Your task to perform on an android device: add a label to a message in the gmail app Image 0: 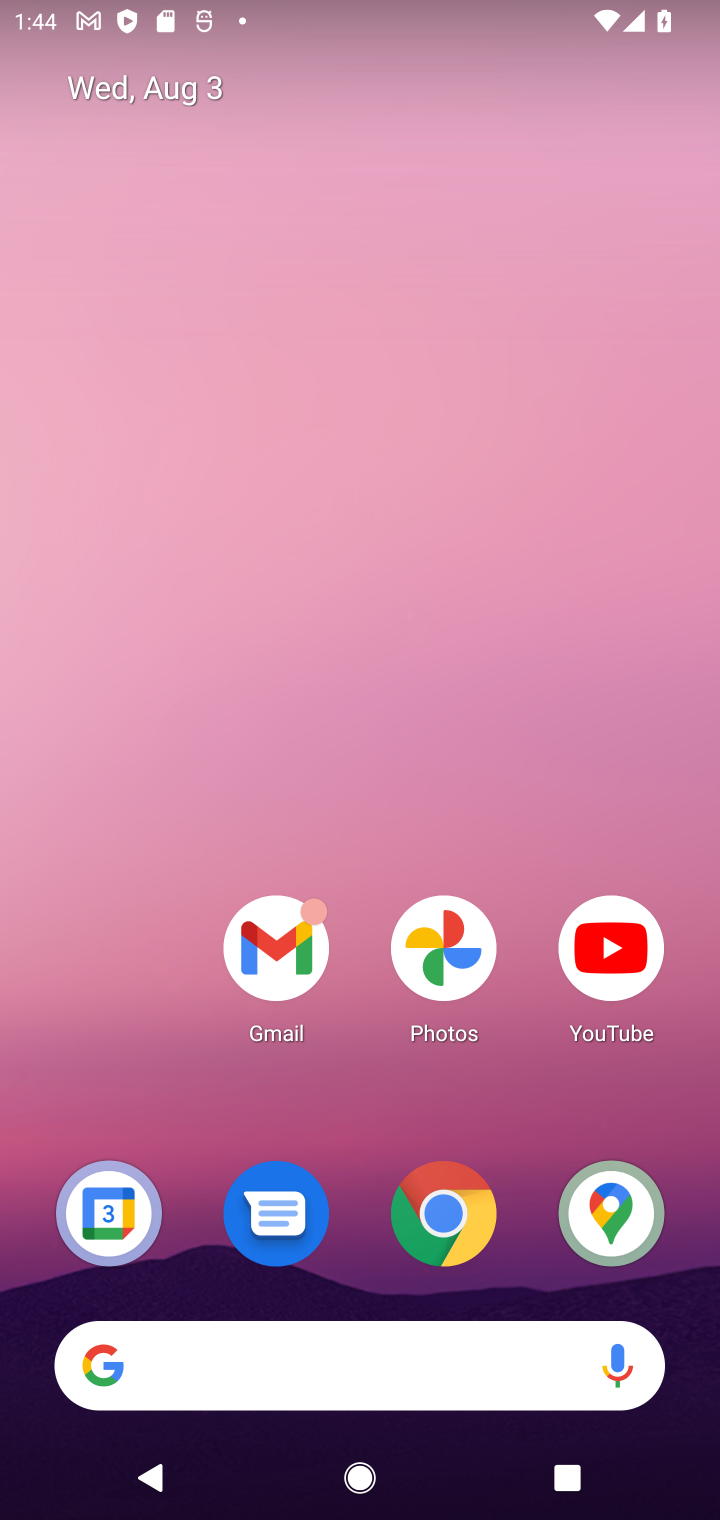
Step 0: drag from (406, 255) to (549, 20)
Your task to perform on an android device: add a label to a message in the gmail app Image 1: 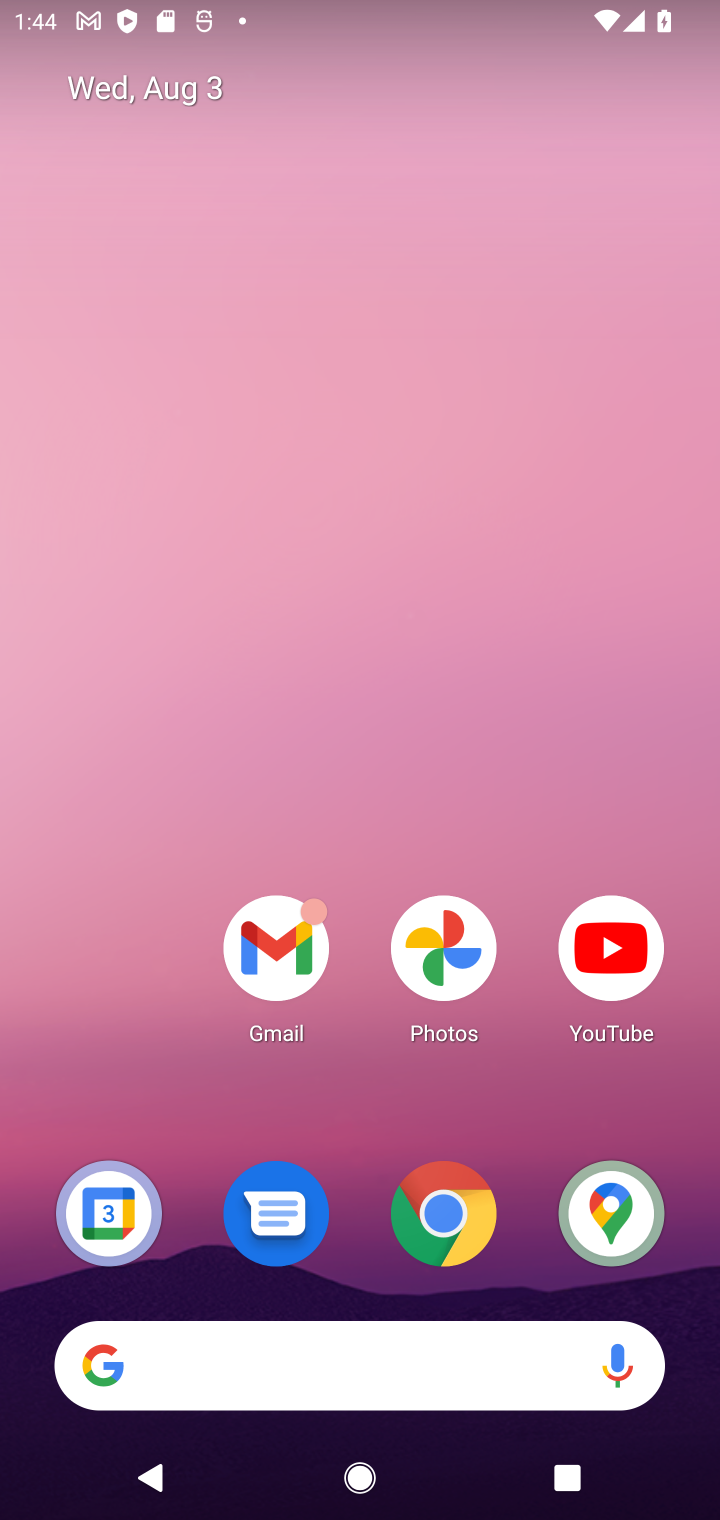
Step 1: drag from (503, 1218) to (621, 76)
Your task to perform on an android device: add a label to a message in the gmail app Image 2: 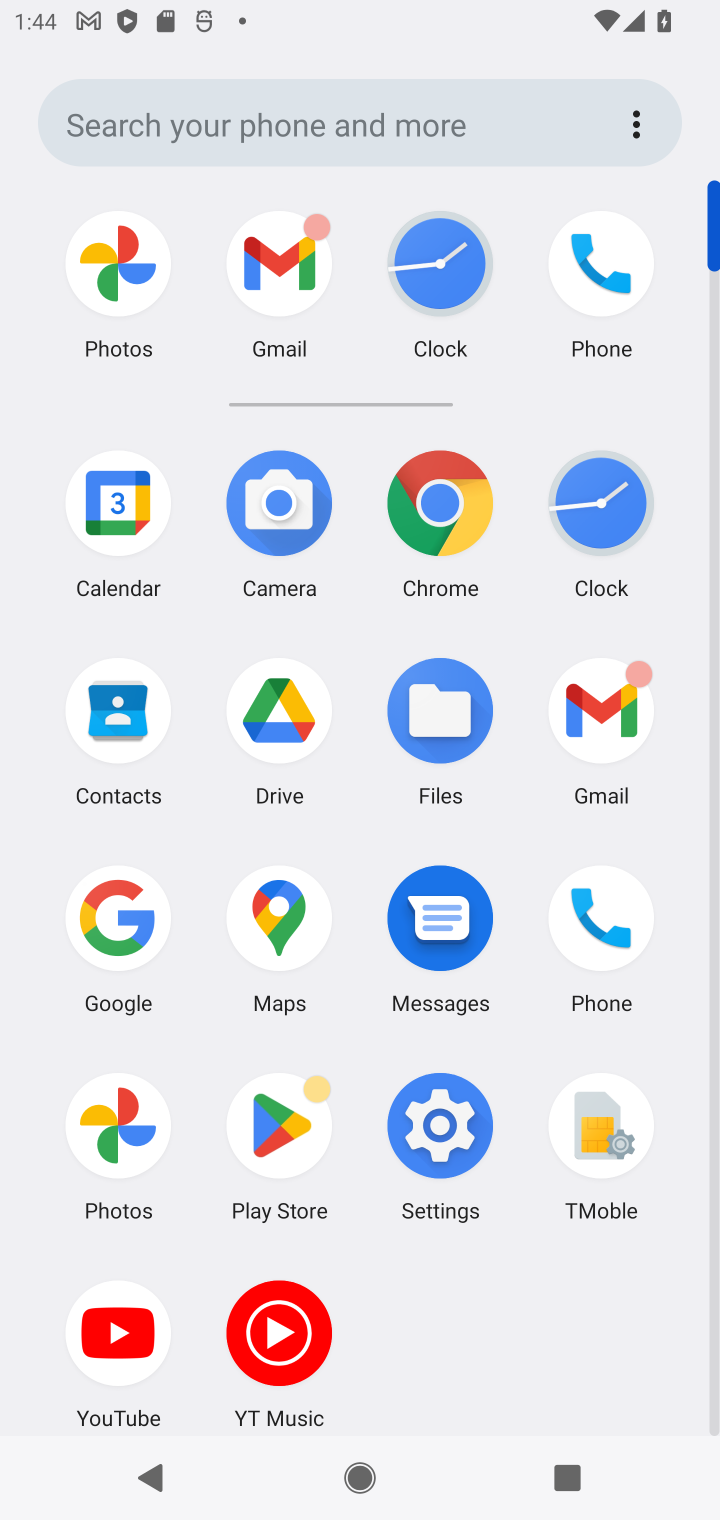
Step 2: click (599, 669)
Your task to perform on an android device: add a label to a message in the gmail app Image 3: 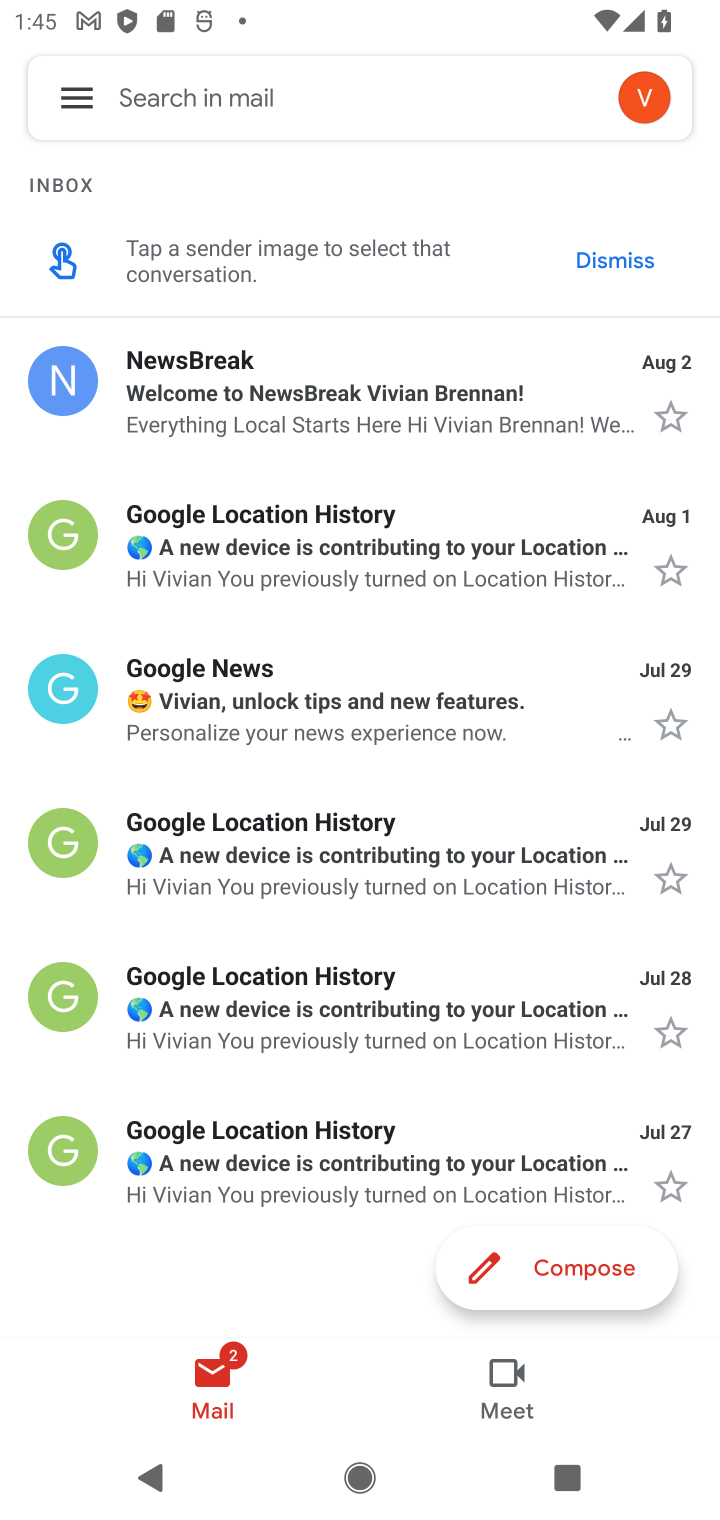
Step 3: click (444, 387)
Your task to perform on an android device: add a label to a message in the gmail app Image 4: 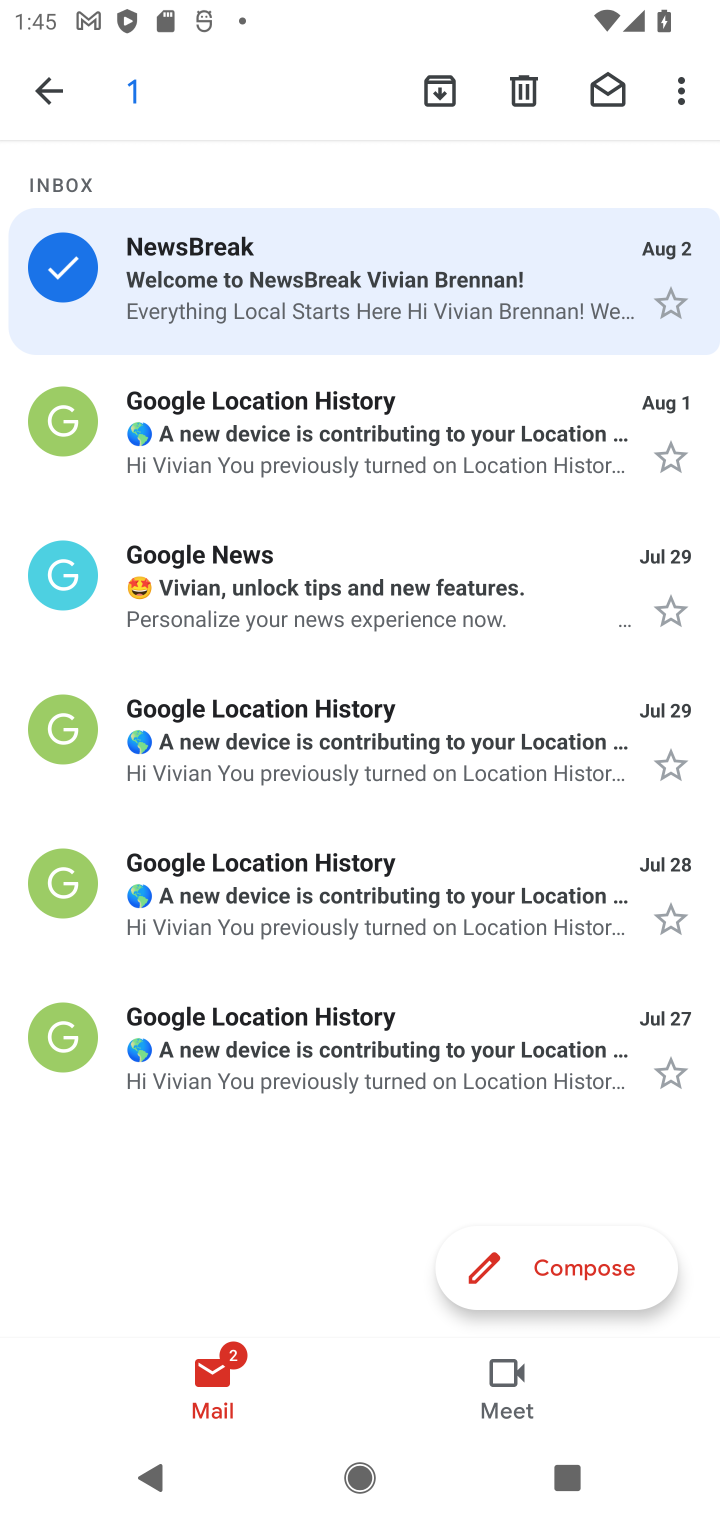
Step 4: click (494, 297)
Your task to perform on an android device: add a label to a message in the gmail app Image 5: 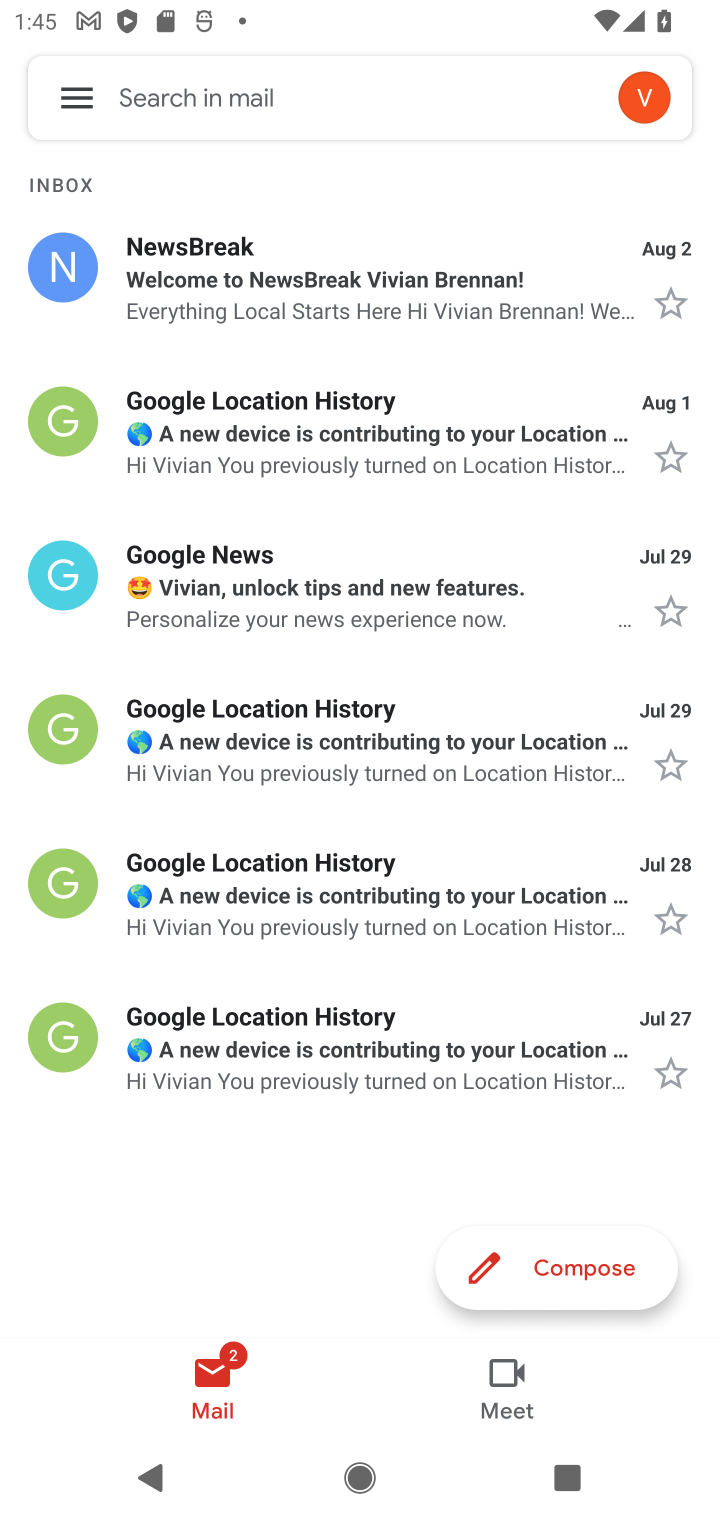
Step 5: click (490, 303)
Your task to perform on an android device: add a label to a message in the gmail app Image 6: 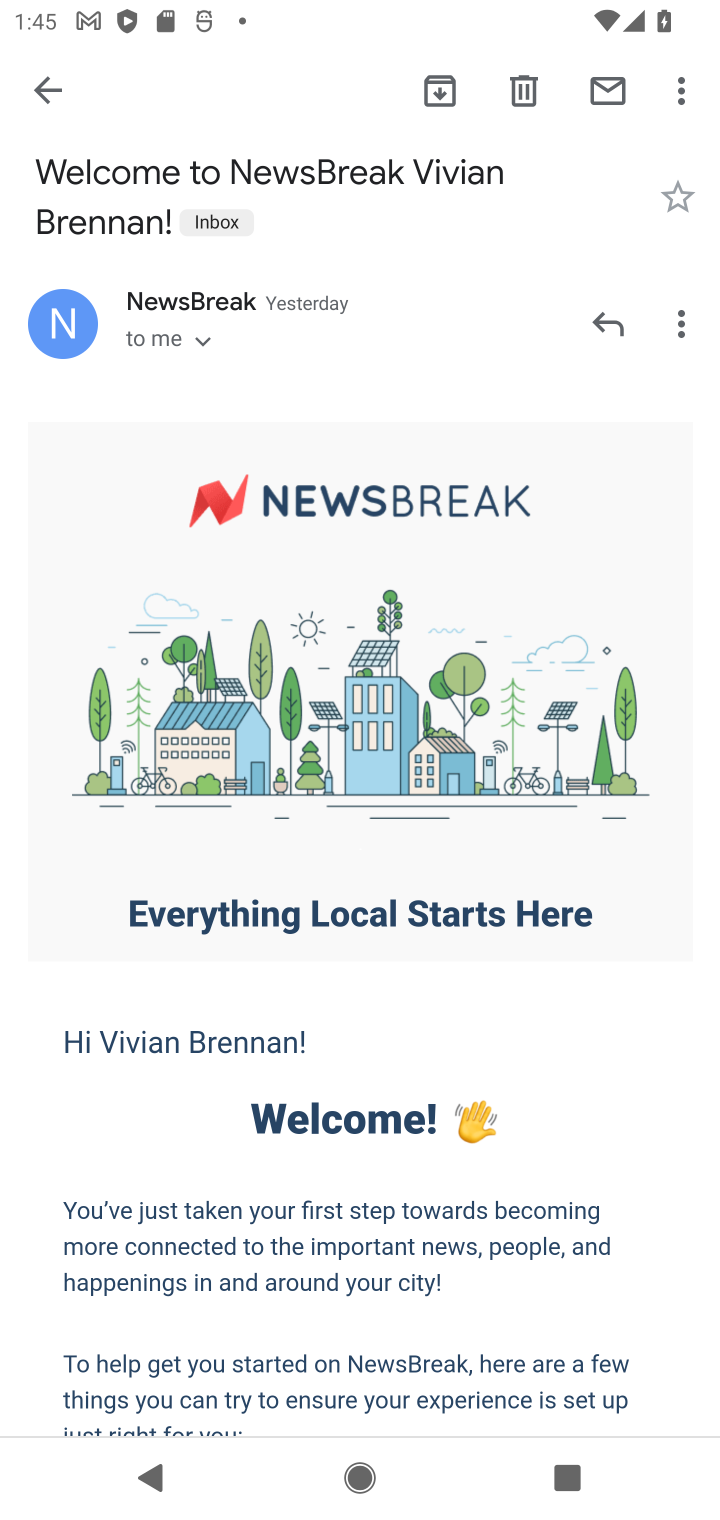
Step 6: click (680, 86)
Your task to perform on an android device: add a label to a message in the gmail app Image 7: 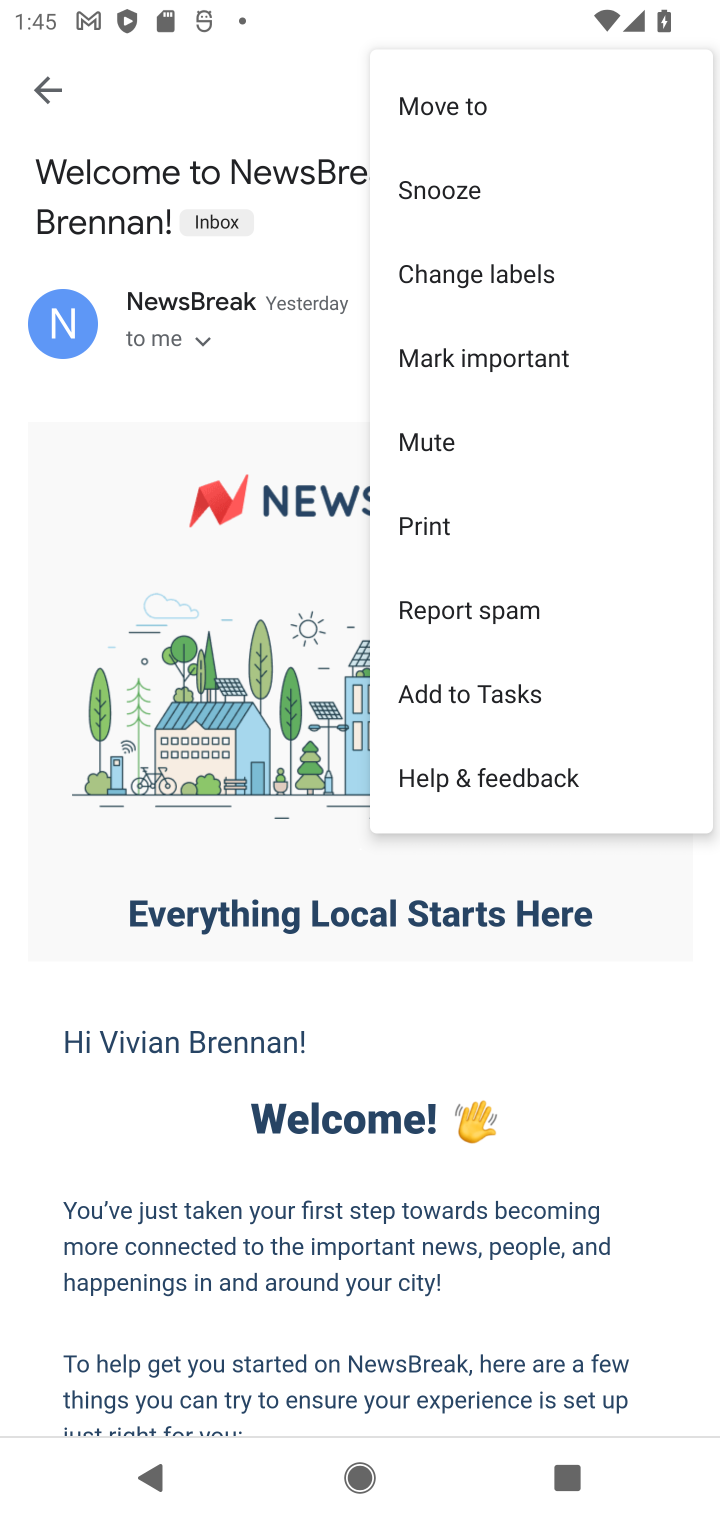
Step 7: click (481, 272)
Your task to perform on an android device: add a label to a message in the gmail app Image 8: 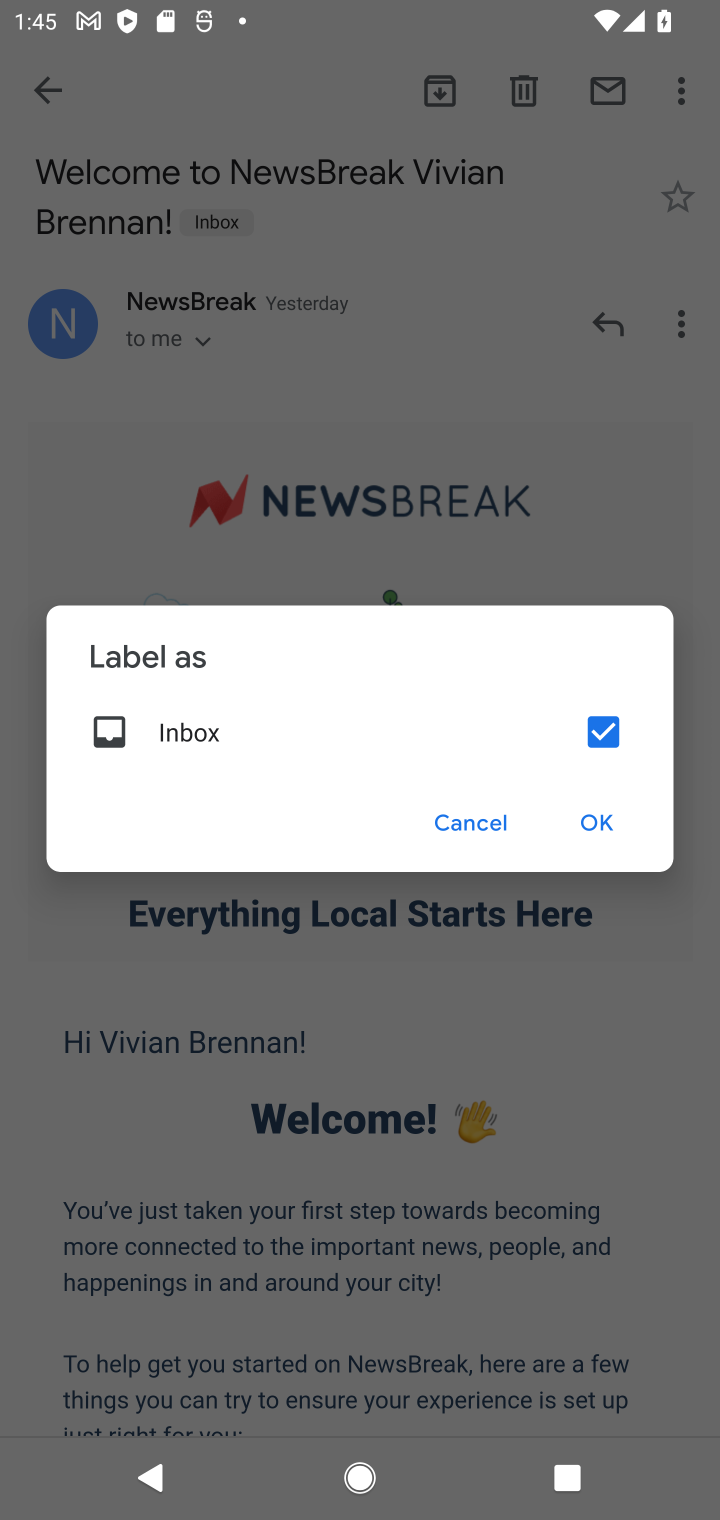
Step 8: click (597, 815)
Your task to perform on an android device: add a label to a message in the gmail app Image 9: 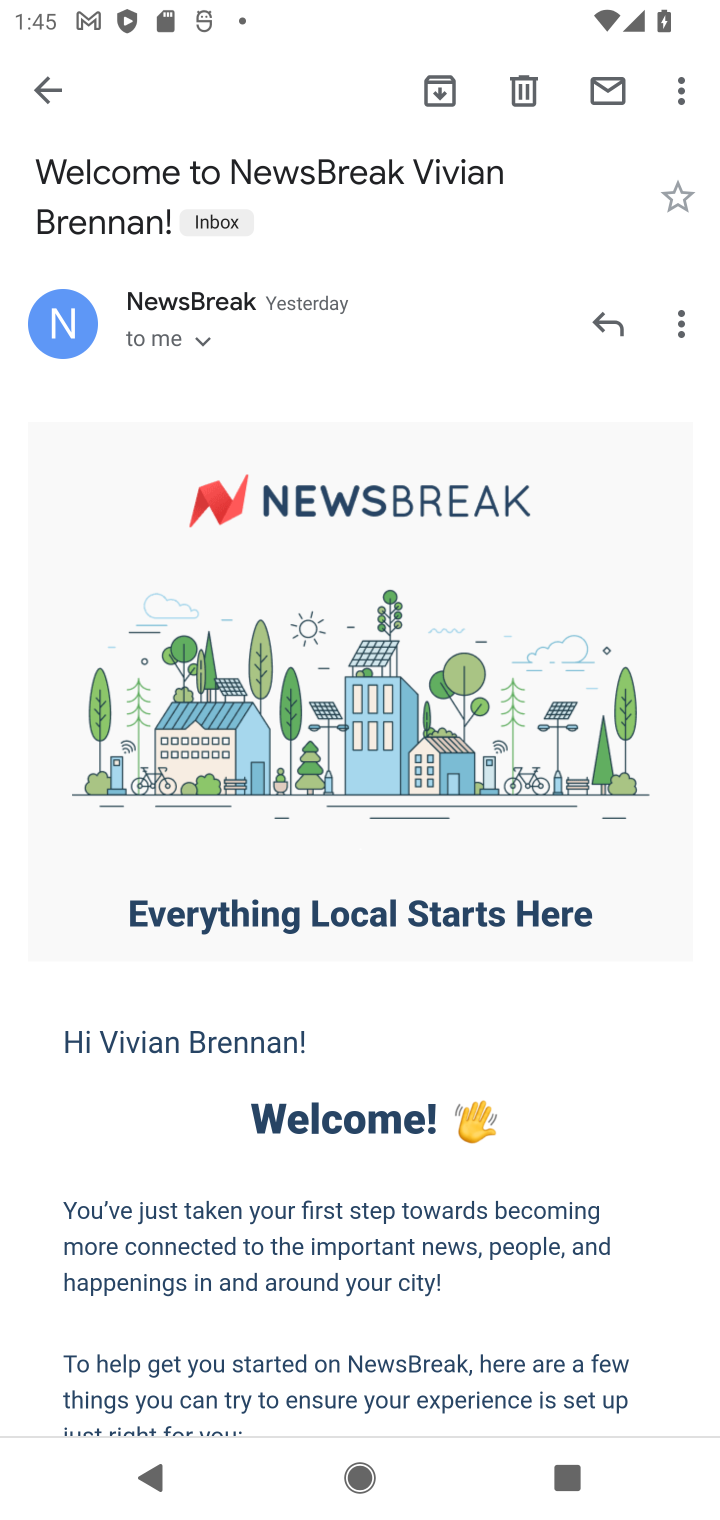
Step 9: task complete